Your task to perform on an android device: turn off wifi Image 0: 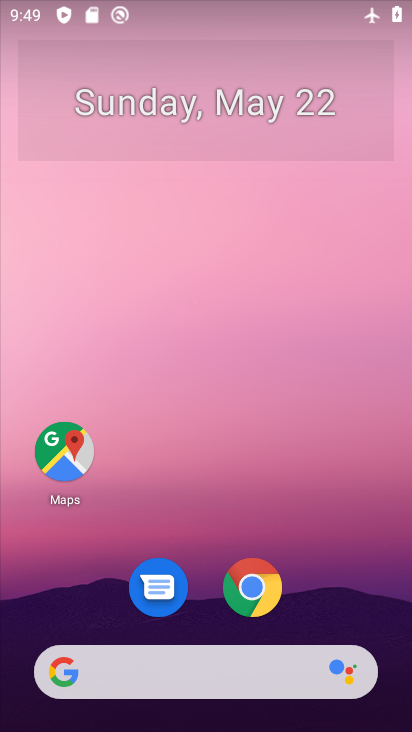
Step 0: drag from (232, 515) to (258, 54)
Your task to perform on an android device: turn off wifi Image 1: 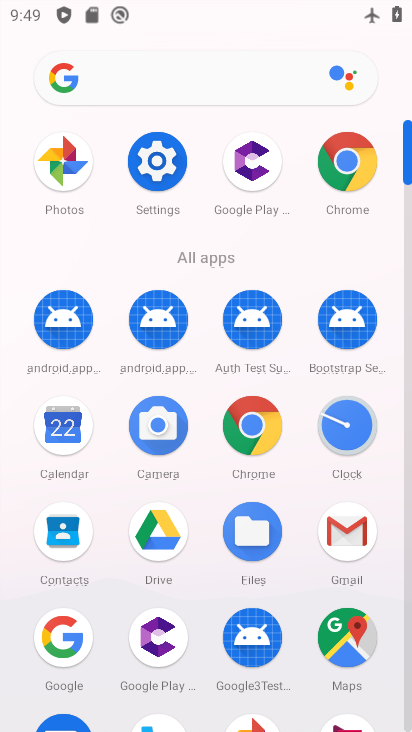
Step 1: click (168, 151)
Your task to perform on an android device: turn off wifi Image 2: 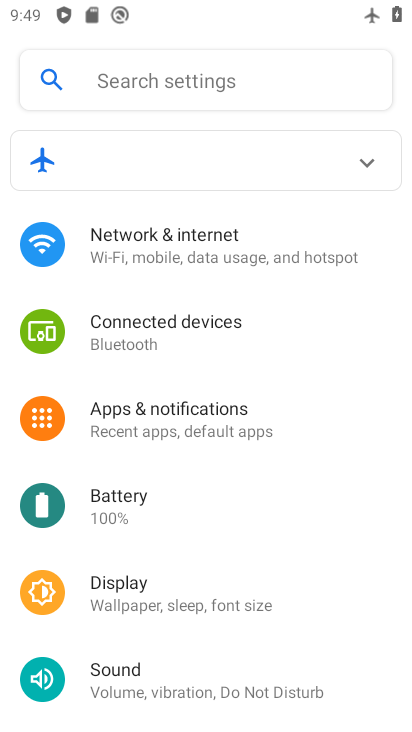
Step 2: click (168, 246)
Your task to perform on an android device: turn off wifi Image 3: 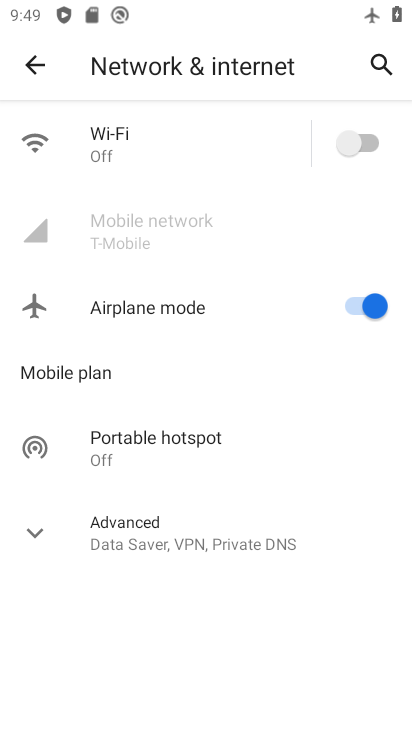
Step 3: task complete